Your task to perform on an android device: turn on airplane mode Image 0: 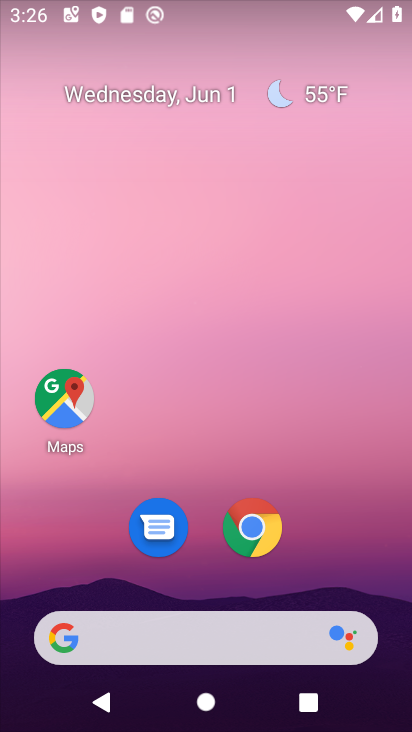
Step 0: press home button
Your task to perform on an android device: turn on airplane mode Image 1: 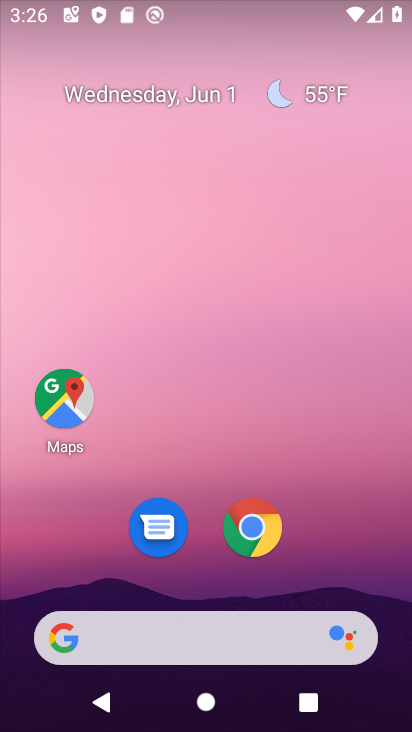
Step 1: drag from (363, 5) to (292, 192)
Your task to perform on an android device: turn on airplane mode Image 2: 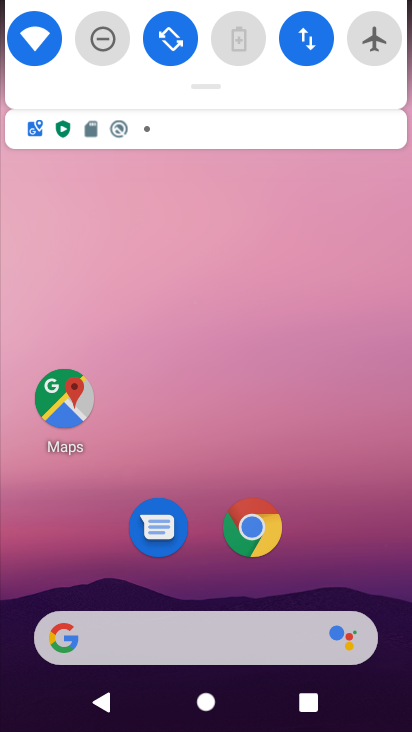
Step 2: drag from (292, 192) to (272, 341)
Your task to perform on an android device: turn on airplane mode Image 3: 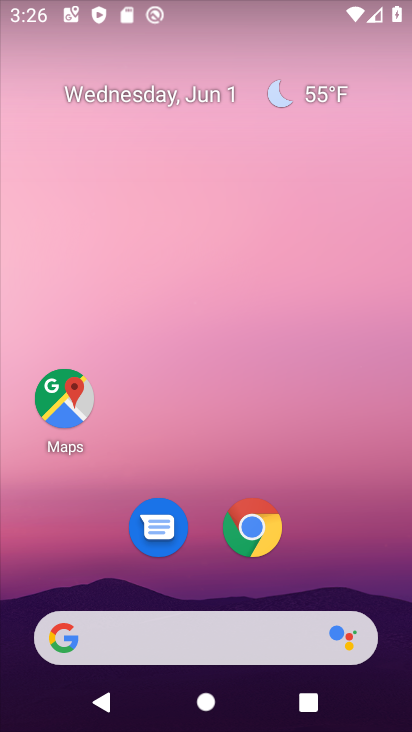
Step 3: drag from (215, 8) to (128, 728)
Your task to perform on an android device: turn on airplane mode Image 4: 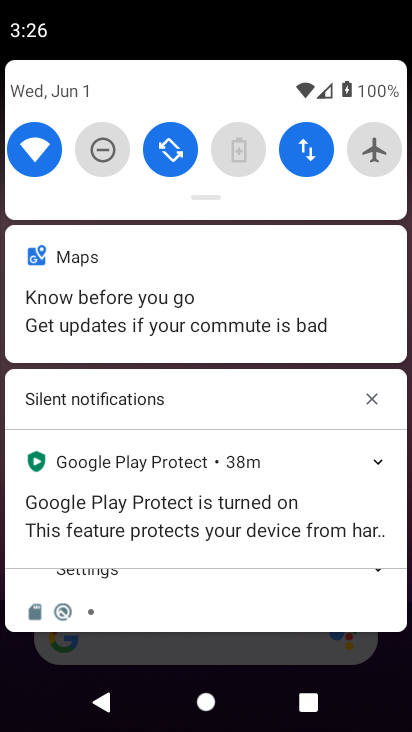
Step 4: click (358, 155)
Your task to perform on an android device: turn on airplane mode Image 5: 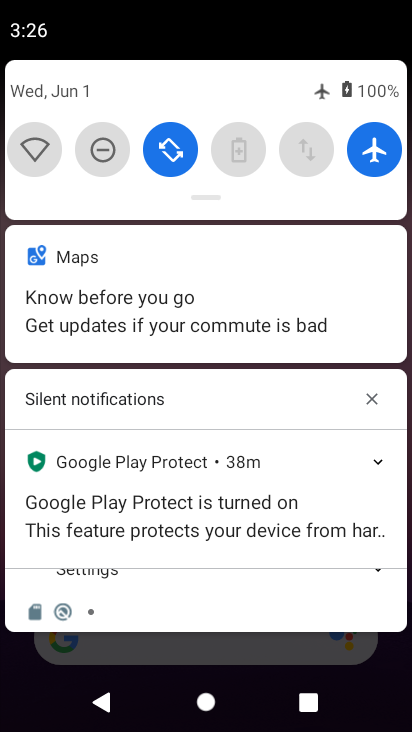
Step 5: task complete